Your task to perform on an android device: allow notifications from all sites in the chrome app Image 0: 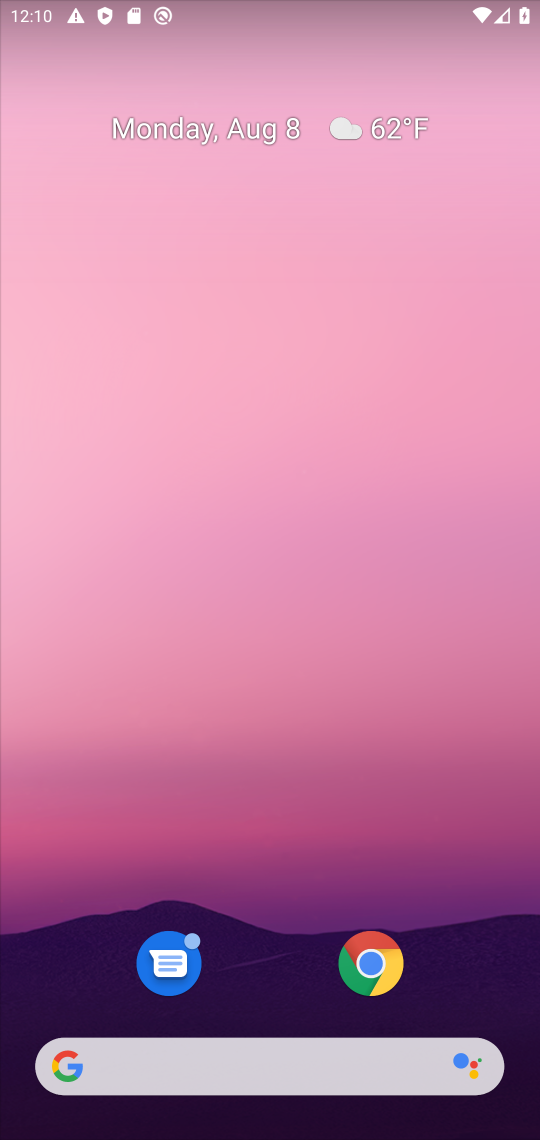
Step 0: drag from (489, 937) to (325, 59)
Your task to perform on an android device: allow notifications from all sites in the chrome app Image 1: 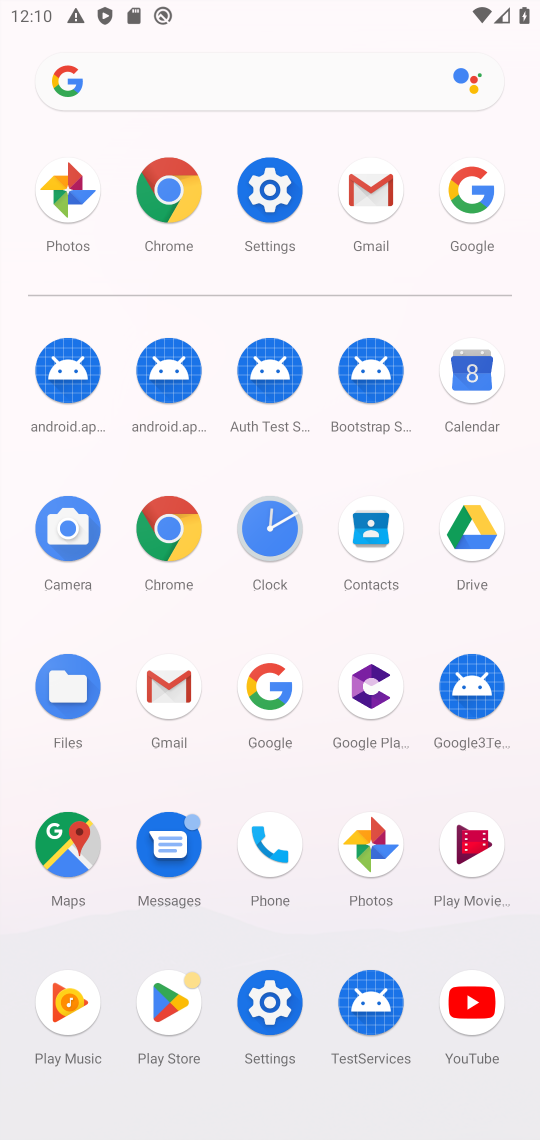
Step 1: click (178, 197)
Your task to perform on an android device: allow notifications from all sites in the chrome app Image 2: 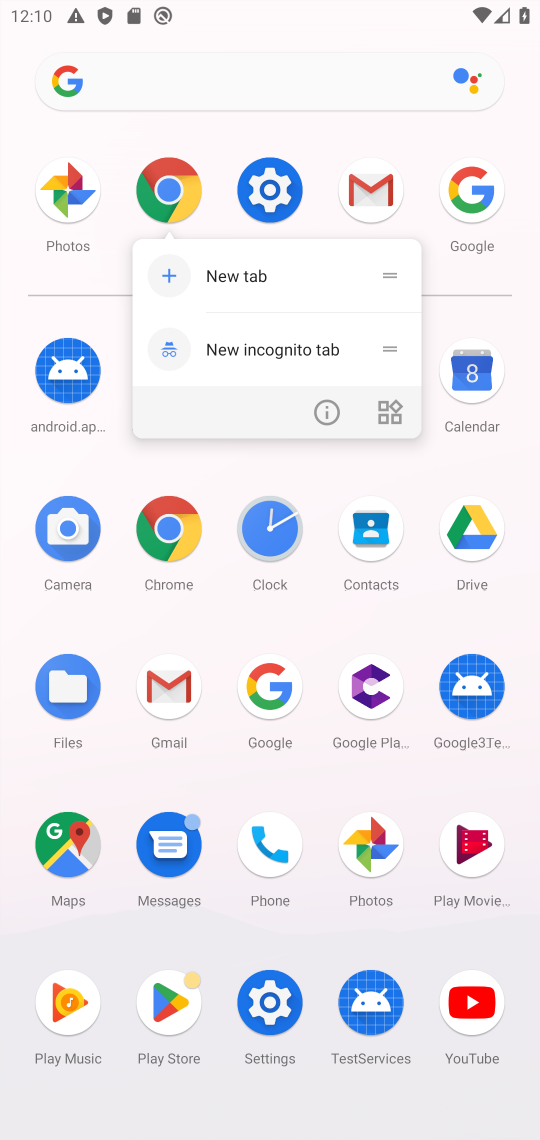
Step 2: click (178, 197)
Your task to perform on an android device: allow notifications from all sites in the chrome app Image 3: 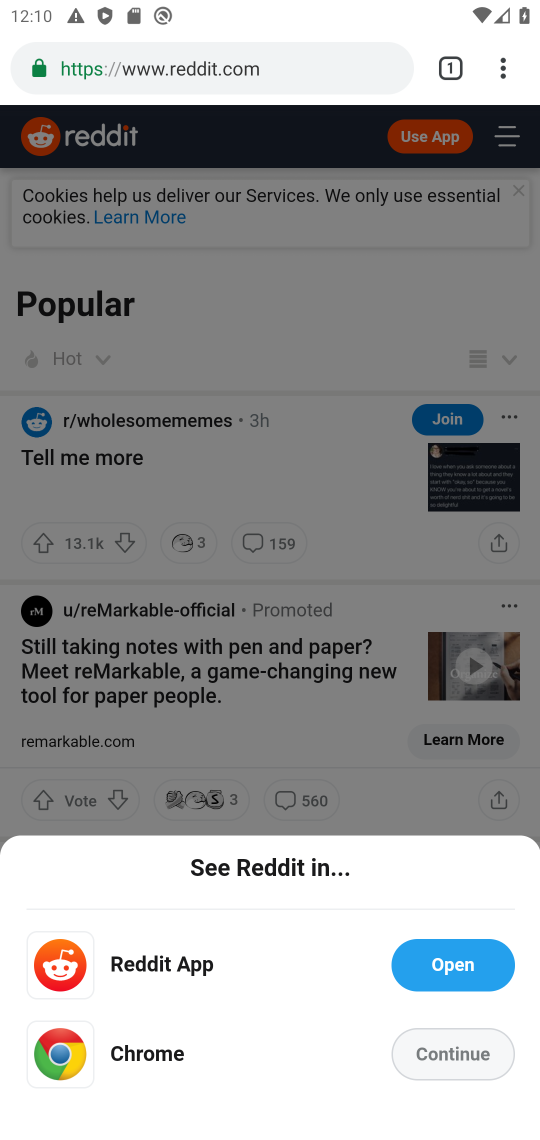
Step 3: click (503, 64)
Your task to perform on an android device: allow notifications from all sites in the chrome app Image 4: 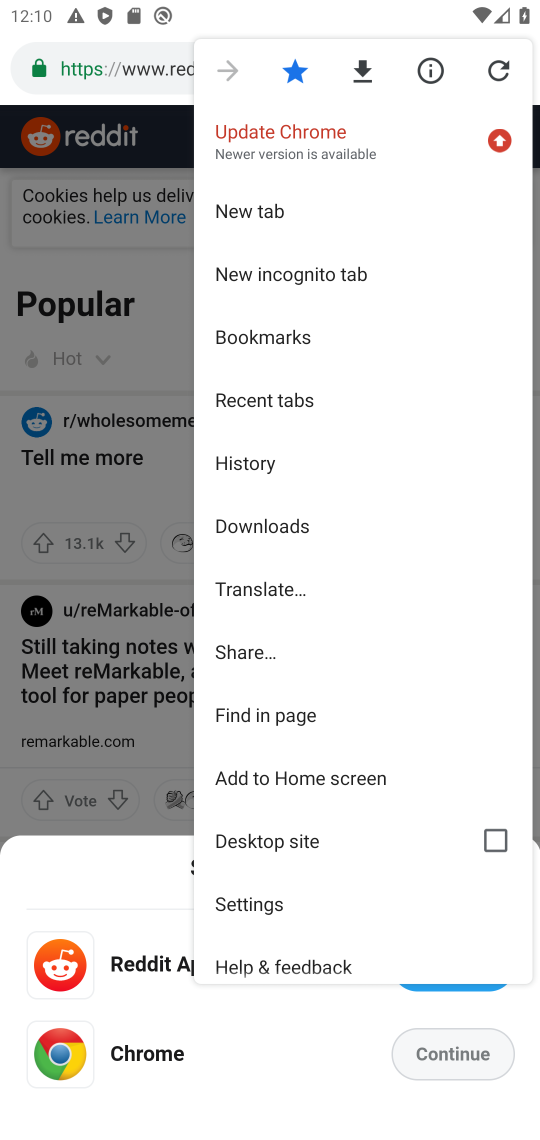
Step 4: click (271, 895)
Your task to perform on an android device: allow notifications from all sites in the chrome app Image 5: 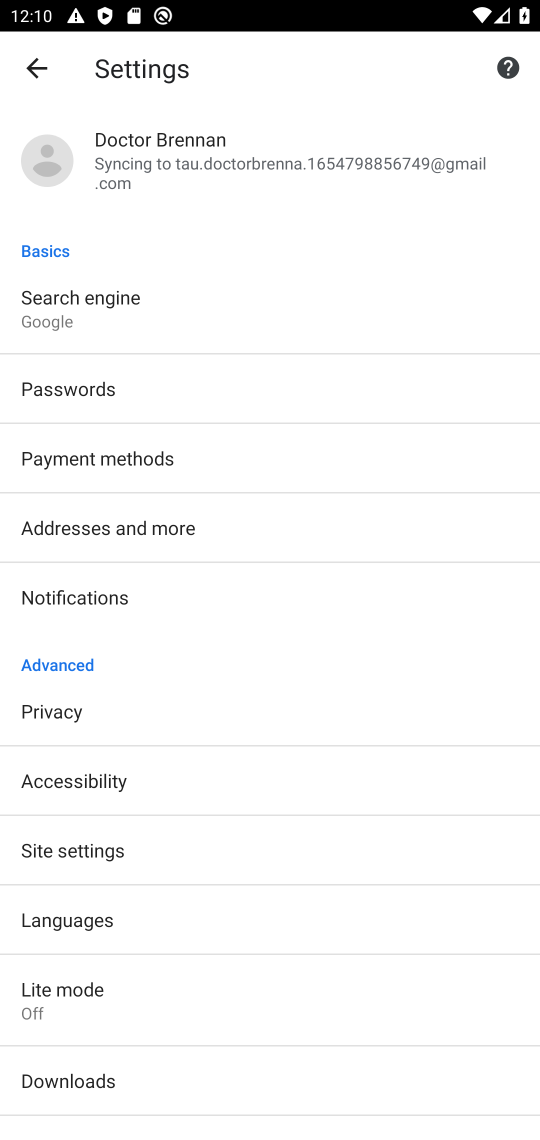
Step 5: click (109, 607)
Your task to perform on an android device: allow notifications from all sites in the chrome app Image 6: 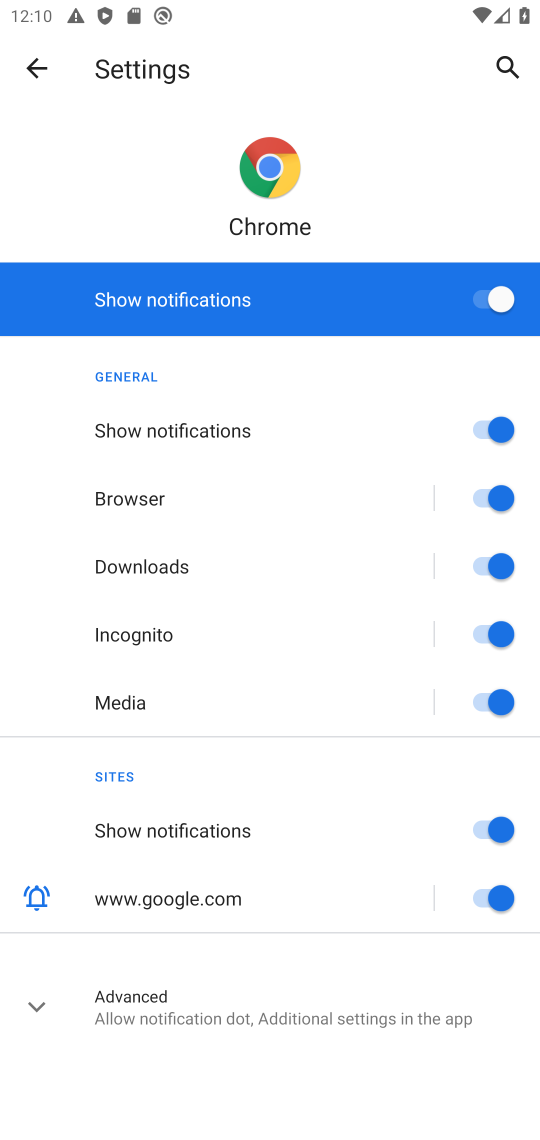
Step 6: task complete